Your task to perform on an android device: Open Google Chrome and click the shortcut for Amazon.com Image 0: 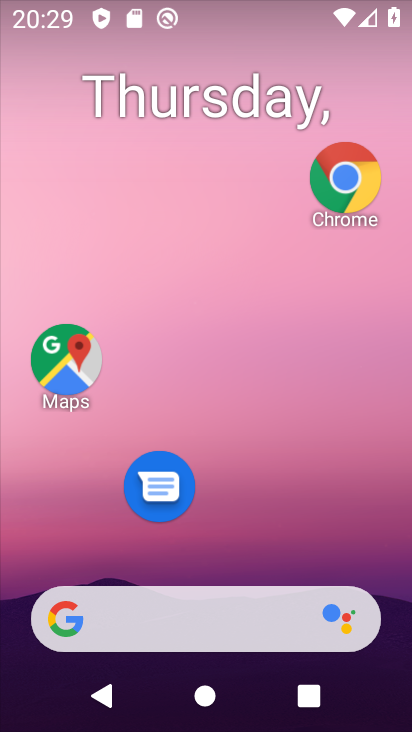
Step 0: click (342, 199)
Your task to perform on an android device: Open Google Chrome and click the shortcut for Amazon.com Image 1: 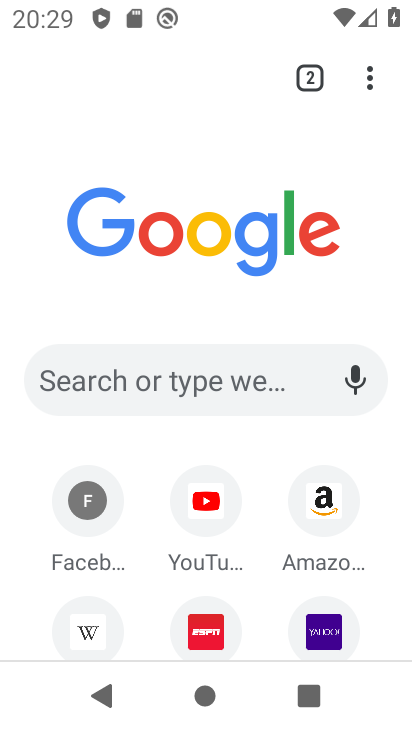
Step 1: click (319, 516)
Your task to perform on an android device: Open Google Chrome and click the shortcut for Amazon.com Image 2: 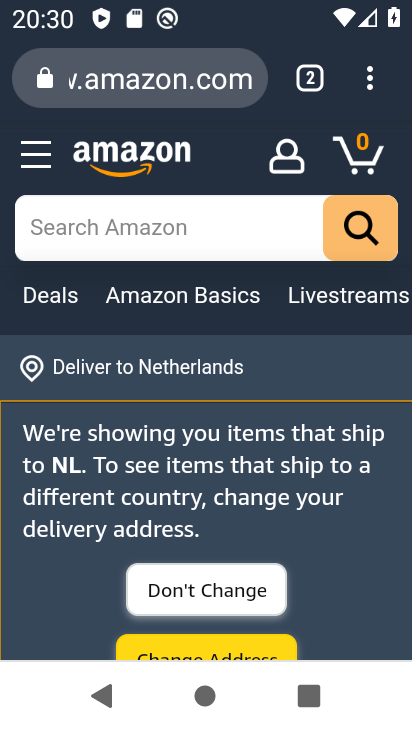
Step 2: task complete